Your task to perform on an android device: Open the Play Movies app and select the watchlist tab. Image 0: 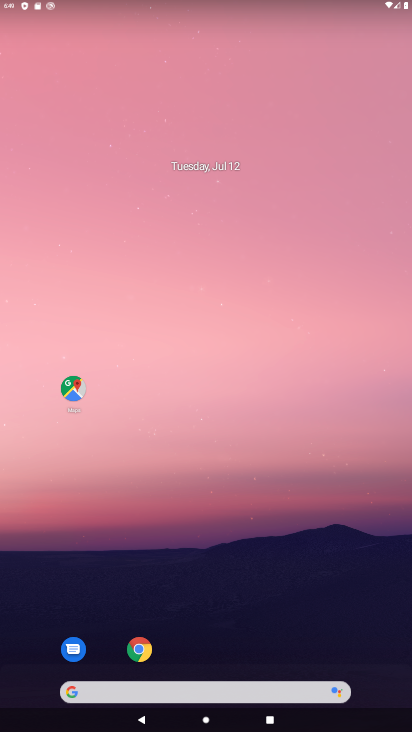
Step 0: drag from (227, 693) to (372, 156)
Your task to perform on an android device: Open the Play Movies app and select the watchlist tab. Image 1: 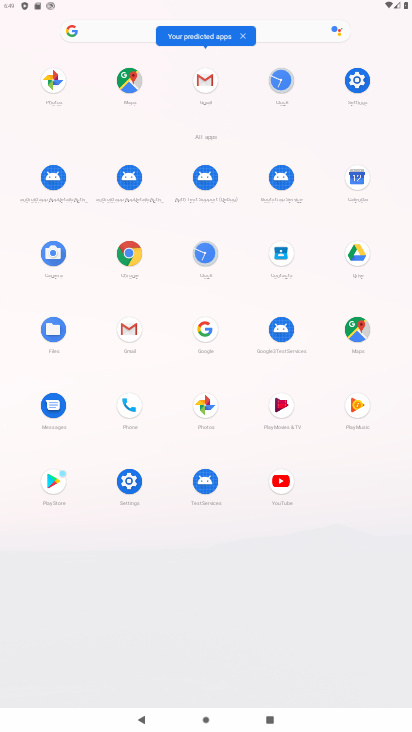
Step 1: click (280, 409)
Your task to perform on an android device: Open the Play Movies app and select the watchlist tab. Image 2: 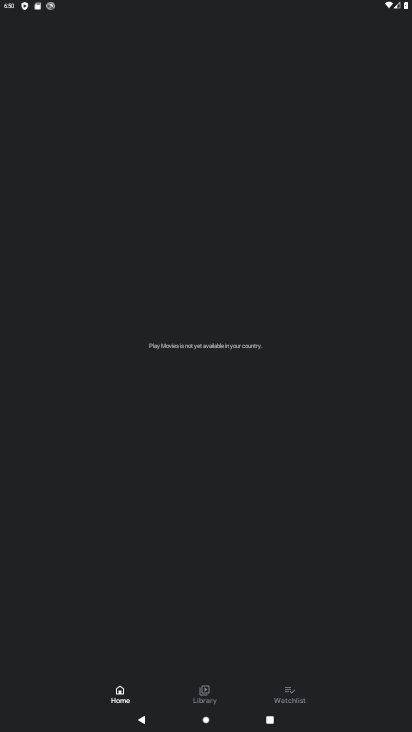
Step 2: click (292, 693)
Your task to perform on an android device: Open the Play Movies app and select the watchlist tab. Image 3: 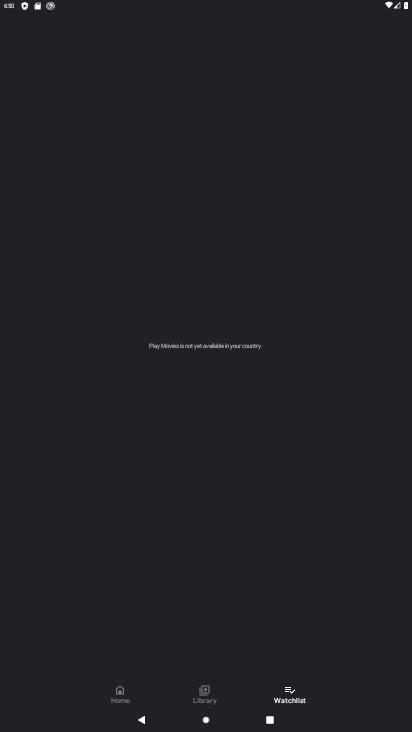
Step 3: task complete